Your task to perform on an android device: Open Amazon Image 0: 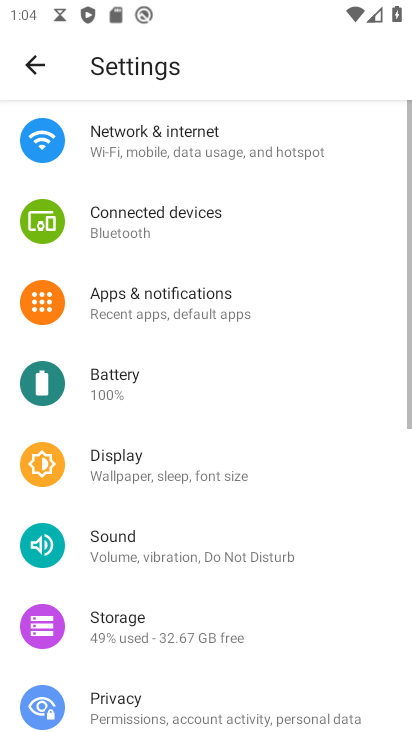
Step 0: press home button
Your task to perform on an android device: Open Amazon Image 1: 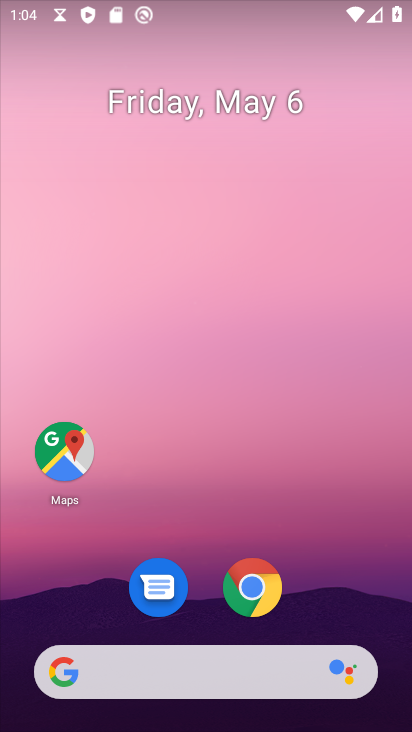
Step 1: drag from (213, 622) to (207, 162)
Your task to perform on an android device: Open Amazon Image 2: 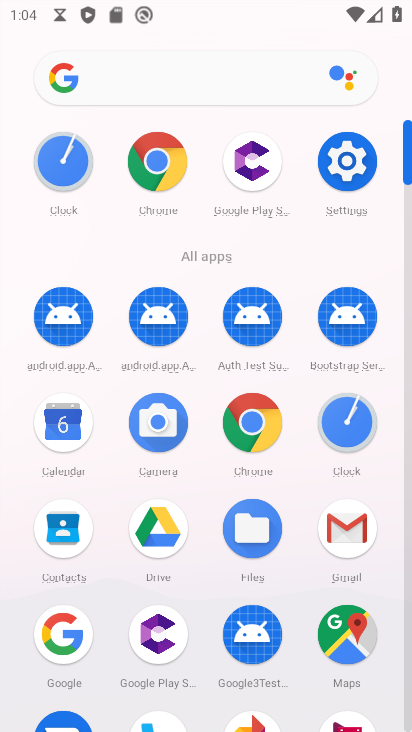
Step 2: click (247, 414)
Your task to perform on an android device: Open Amazon Image 3: 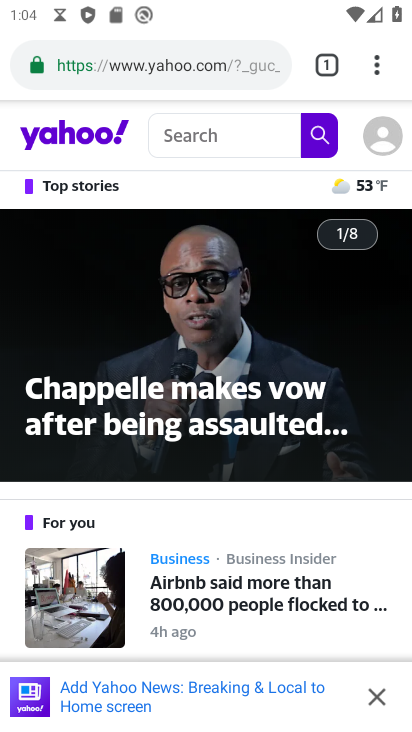
Step 3: click (325, 58)
Your task to perform on an android device: Open Amazon Image 4: 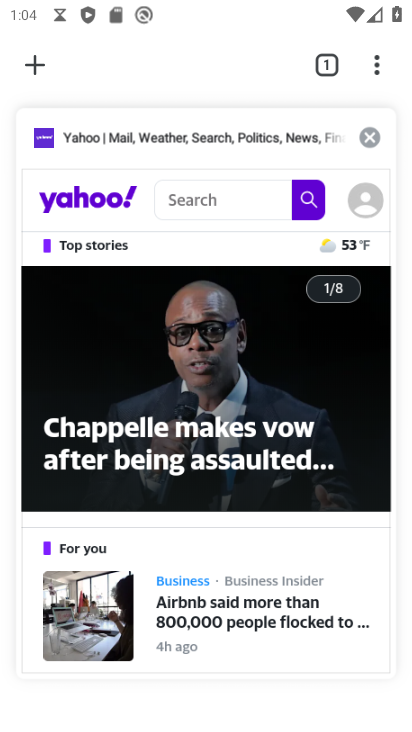
Step 4: click (42, 69)
Your task to perform on an android device: Open Amazon Image 5: 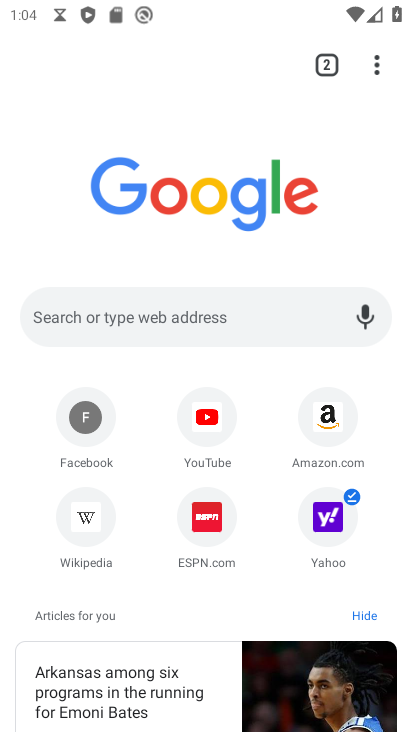
Step 5: click (324, 411)
Your task to perform on an android device: Open Amazon Image 6: 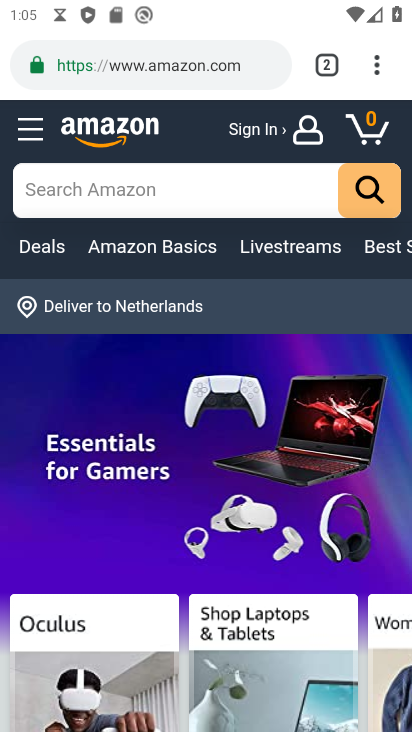
Step 6: task complete